Your task to perform on an android device: delete a single message in the gmail app Image 0: 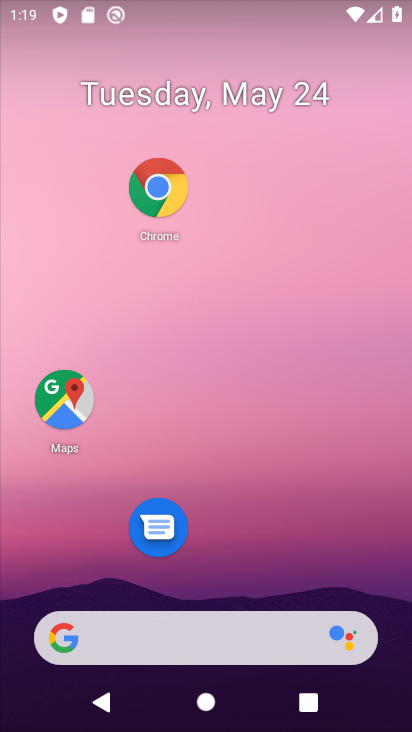
Step 0: click (232, 59)
Your task to perform on an android device: delete a single message in the gmail app Image 1: 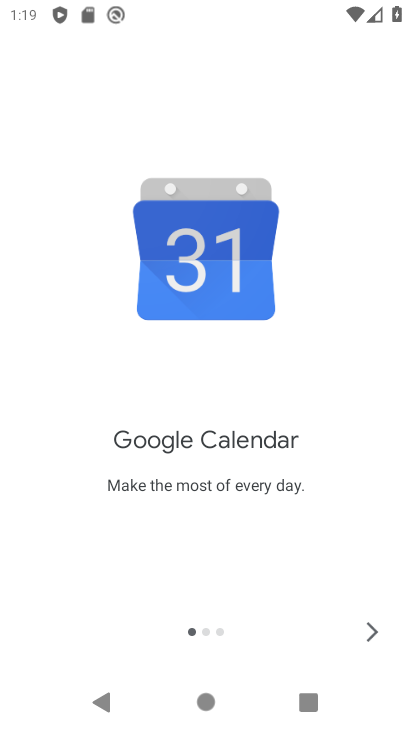
Step 1: press home button
Your task to perform on an android device: delete a single message in the gmail app Image 2: 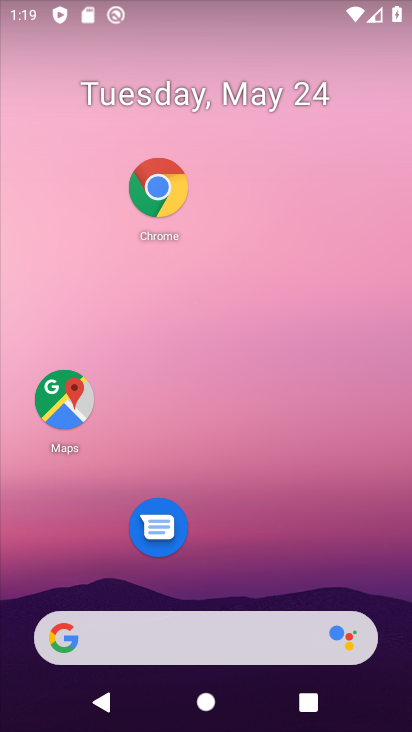
Step 2: drag from (245, 569) to (187, 11)
Your task to perform on an android device: delete a single message in the gmail app Image 3: 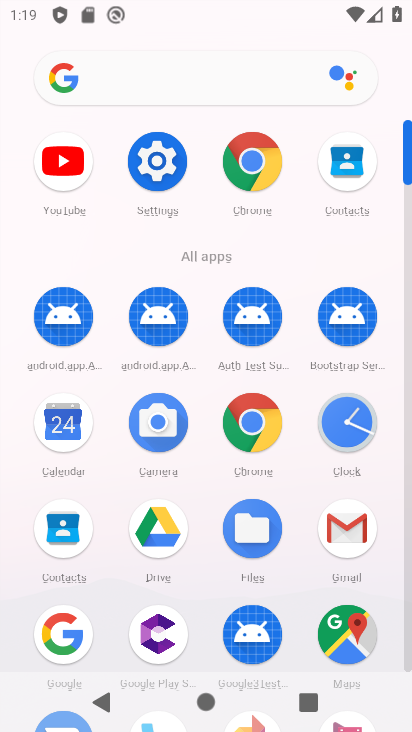
Step 3: click (345, 547)
Your task to perform on an android device: delete a single message in the gmail app Image 4: 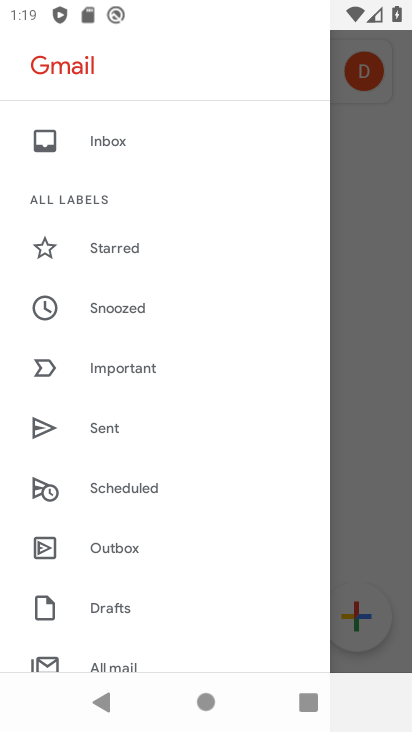
Step 4: click (113, 661)
Your task to perform on an android device: delete a single message in the gmail app Image 5: 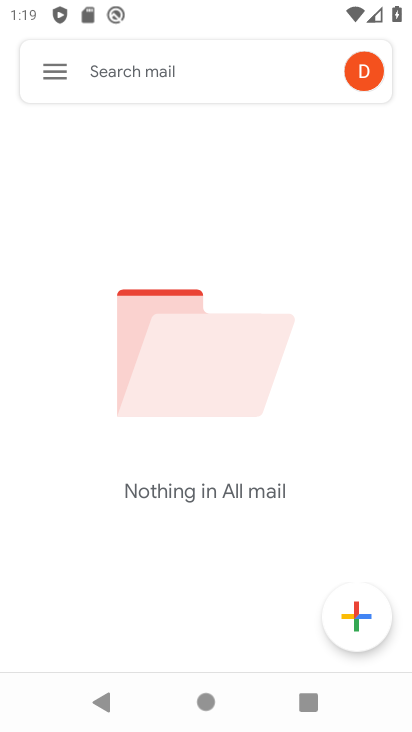
Step 5: task complete